Your task to perform on an android device: turn on bluetooth scan Image 0: 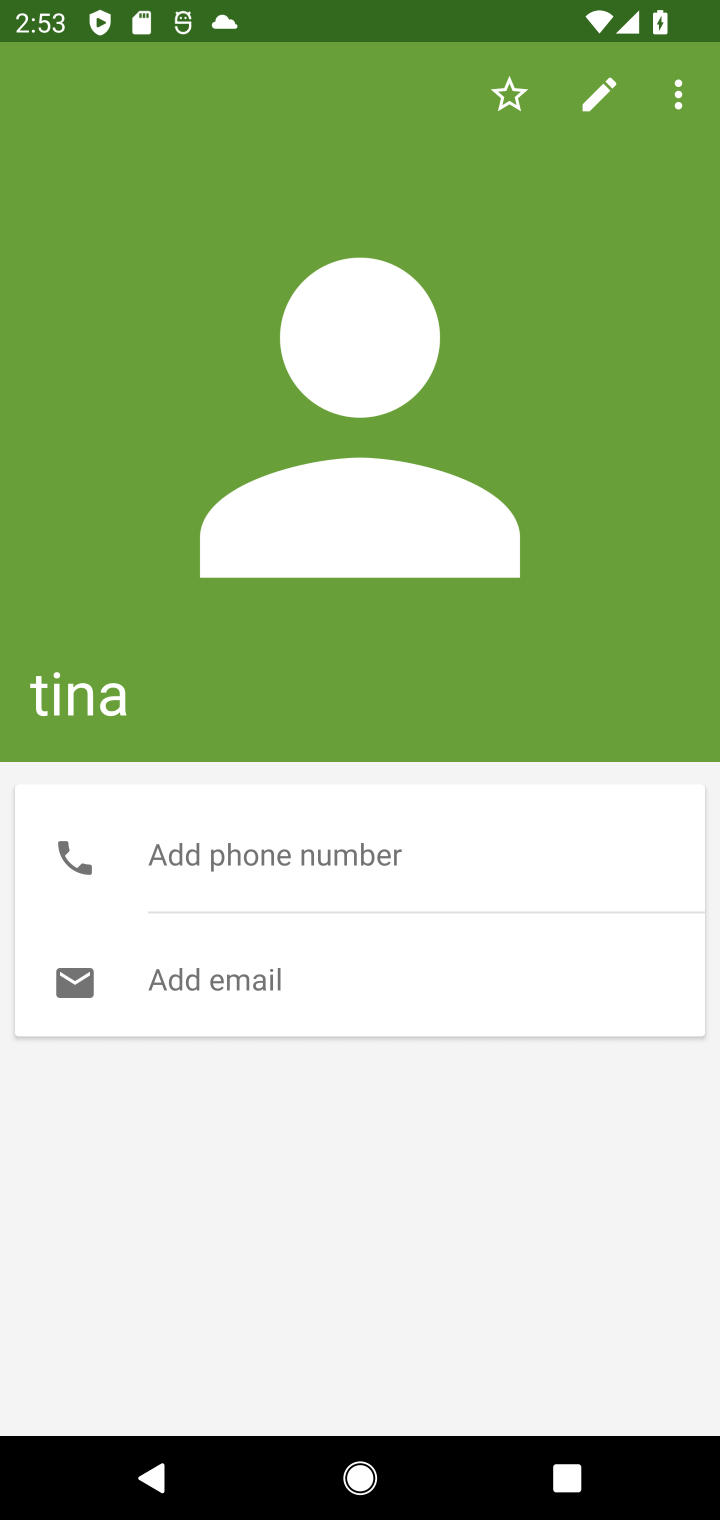
Step 0: press home button
Your task to perform on an android device: turn on bluetooth scan Image 1: 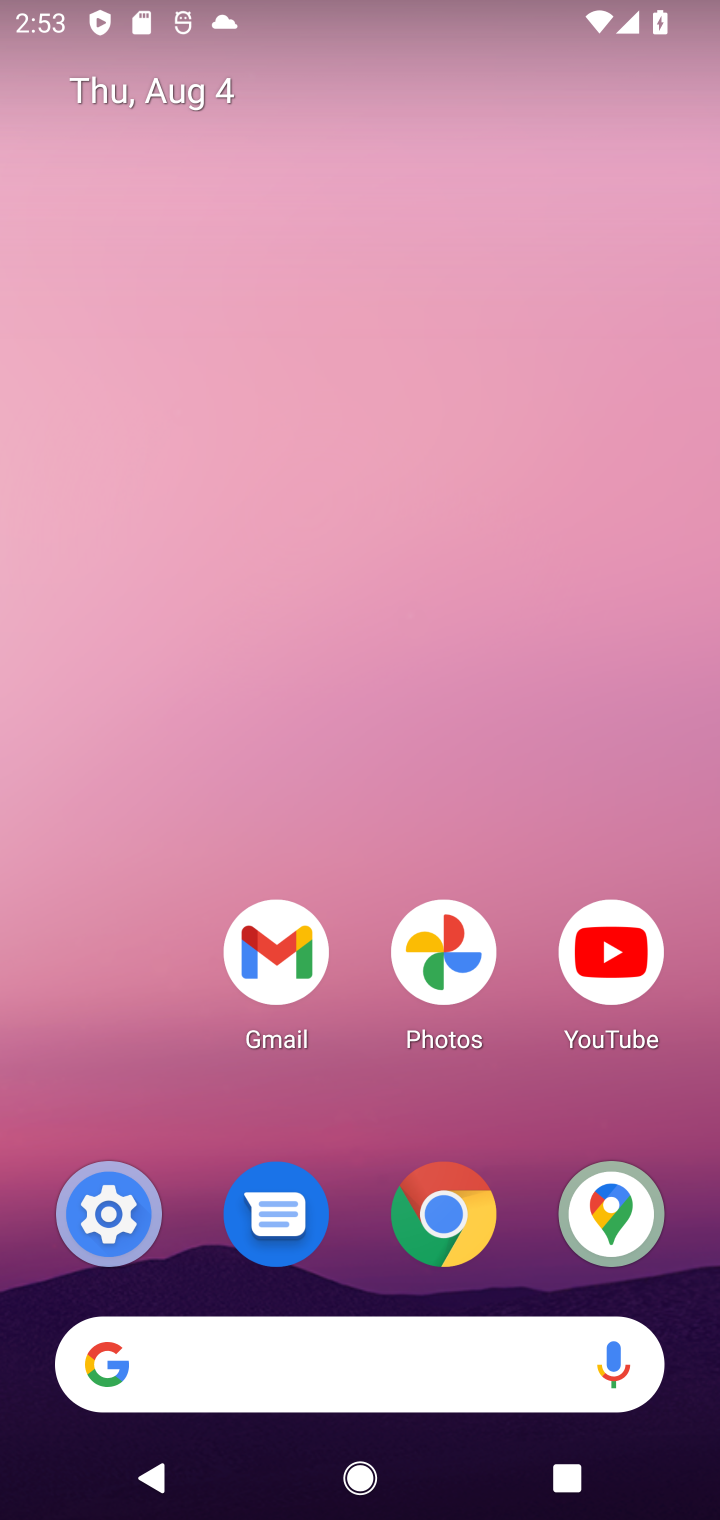
Step 1: drag from (140, 1036) to (75, 55)
Your task to perform on an android device: turn on bluetooth scan Image 2: 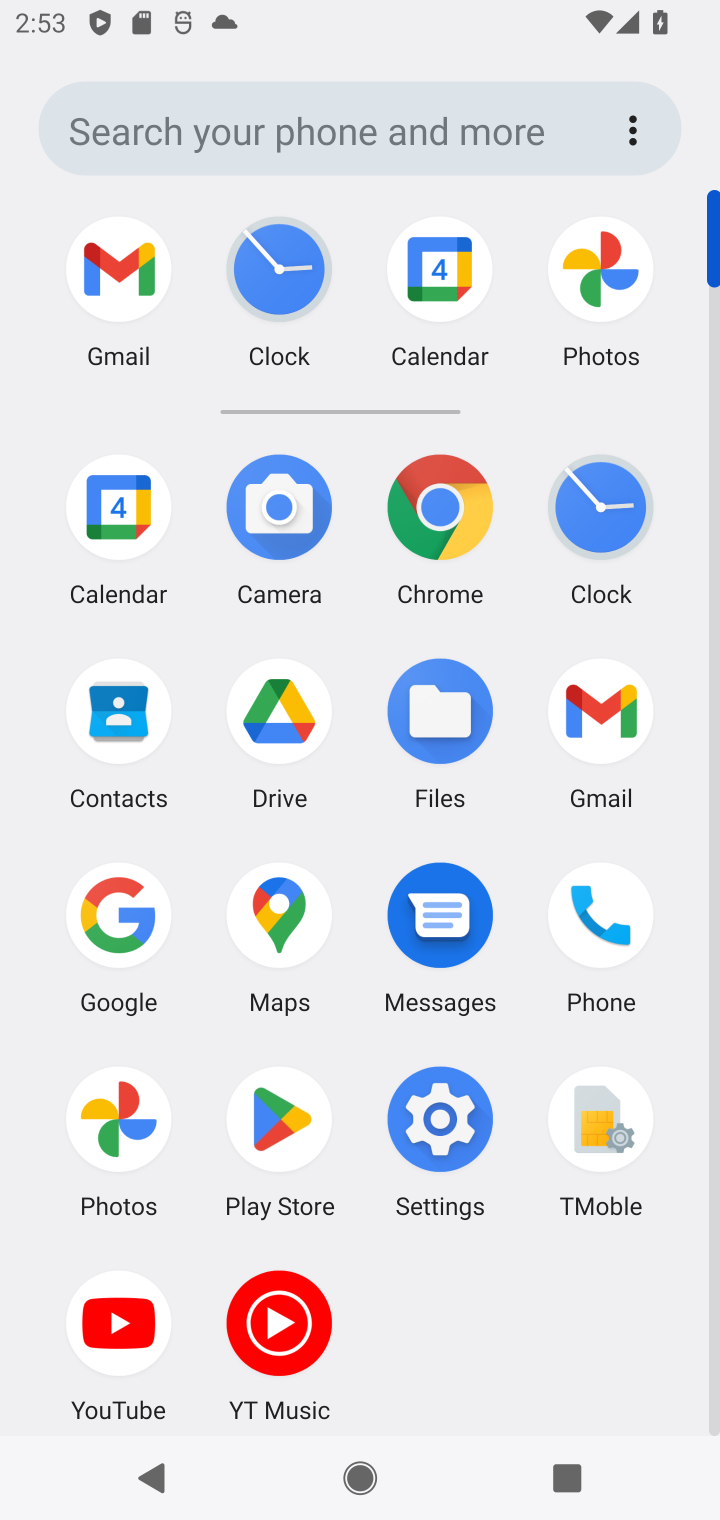
Step 2: click (455, 1108)
Your task to perform on an android device: turn on bluetooth scan Image 3: 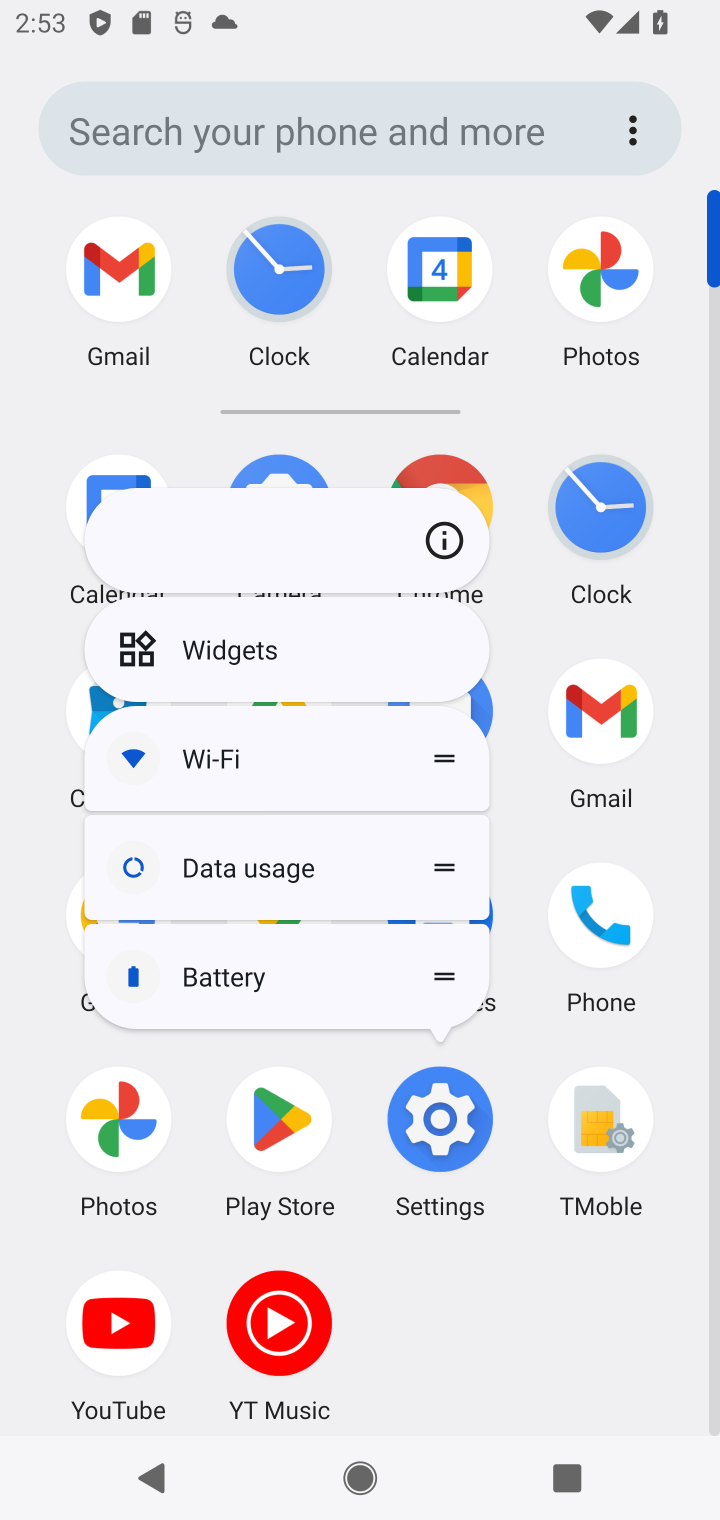
Step 3: click (436, 1156)
Your task to perform on an android device: turn on bluetooth scan Image 4: 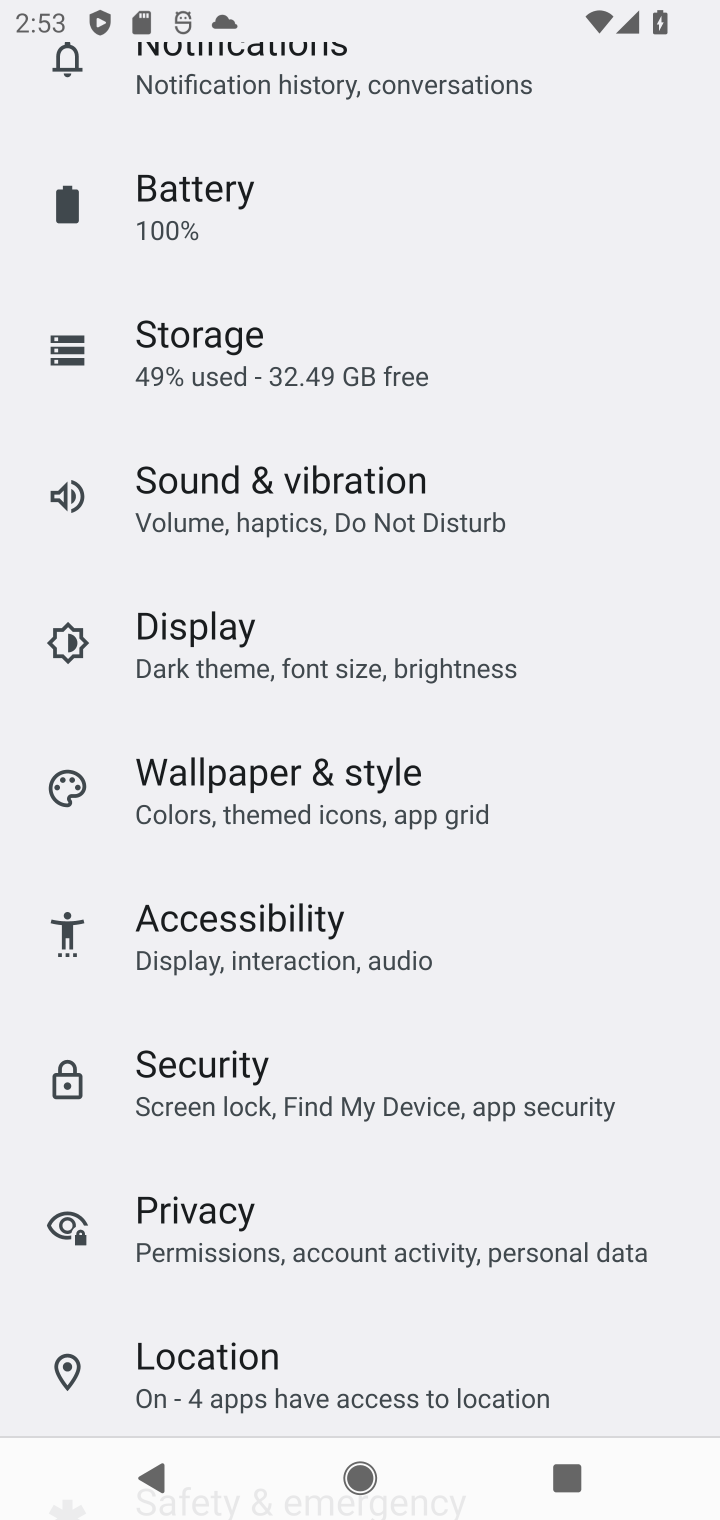
Step 4: task complete